Your task to perform on an android device: turn on bluetooth scan Image 0: 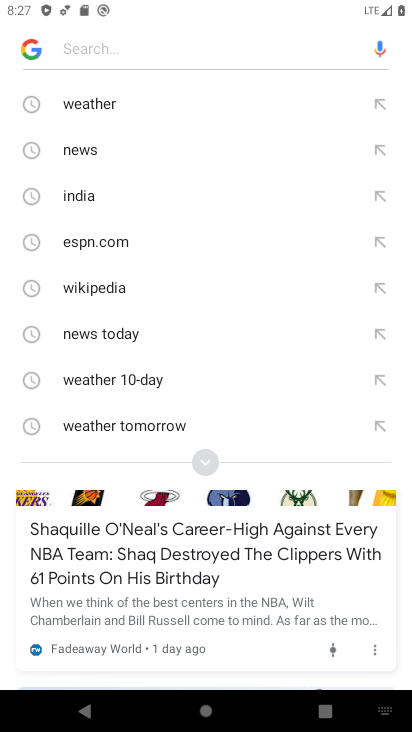
Step 0: press home button
Your task to perform on an android device: turn on bluetooth scan Image 1: 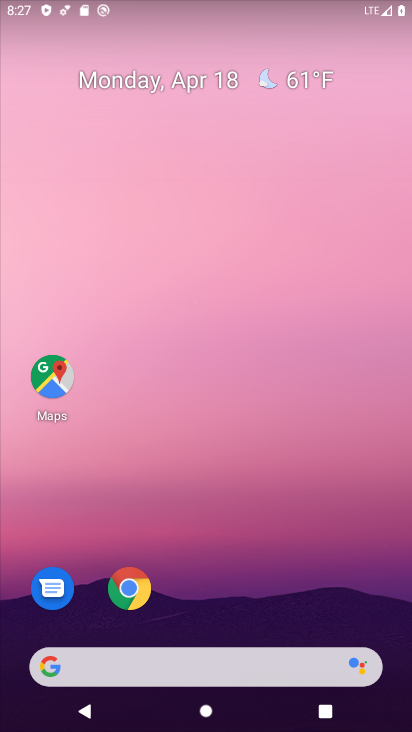
Step 1: drag from (395, 636) to (373, 162)
Your task to perform on an android device: turn on bluetooth scan Image 2: 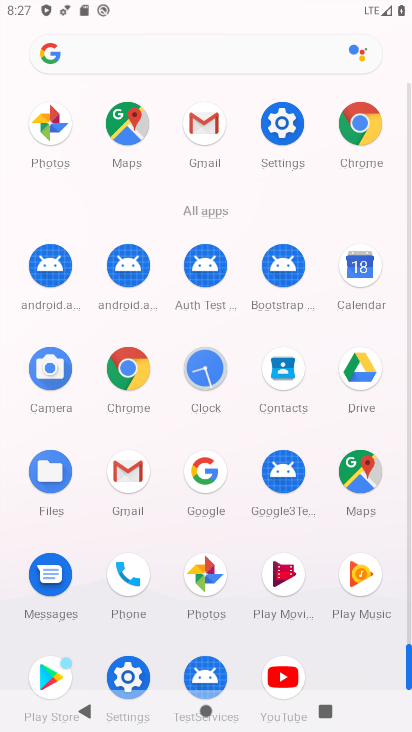
Step 2: click (126, 674)
Your task to perform on an android device: turn on bluetooth scan Image 3: 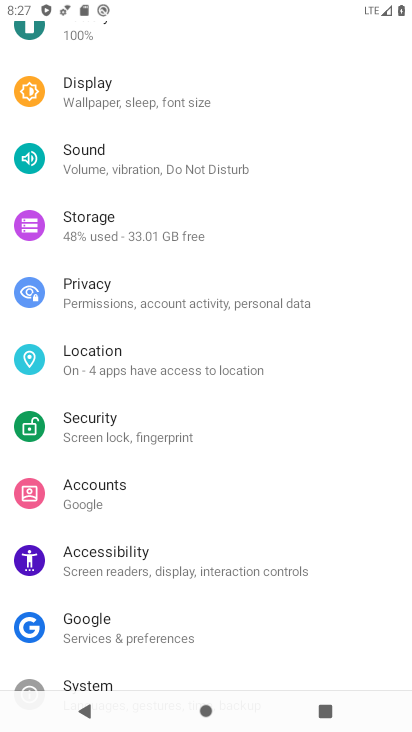
Step 3: drag from (299, 162) to (322, 354)
Your task to perform on an android device: turn on bluetooth scan Image 4: 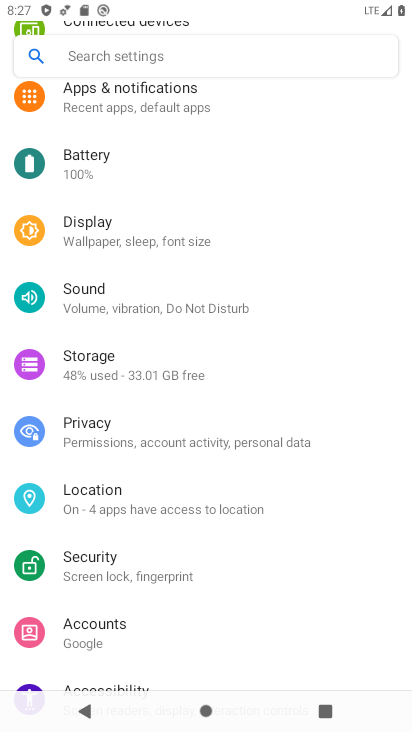
Step 4: click (294, 181)
Your task to perform on an android device: turn on bluetooth scan Image 5: 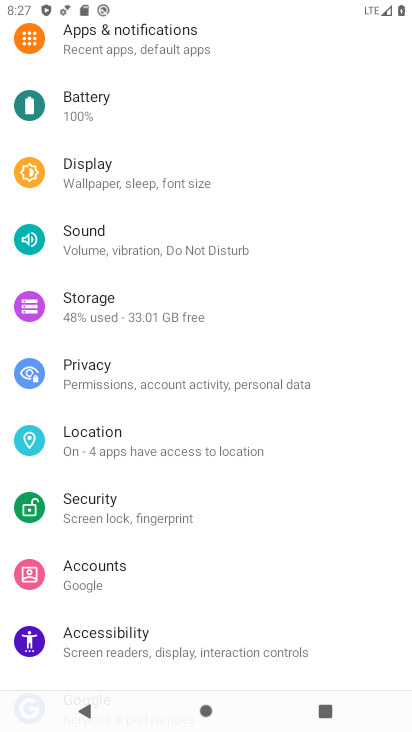
Step 5: click (81, 427)
Your task to perform on an android device: turn on bluetooth scan Image 6: 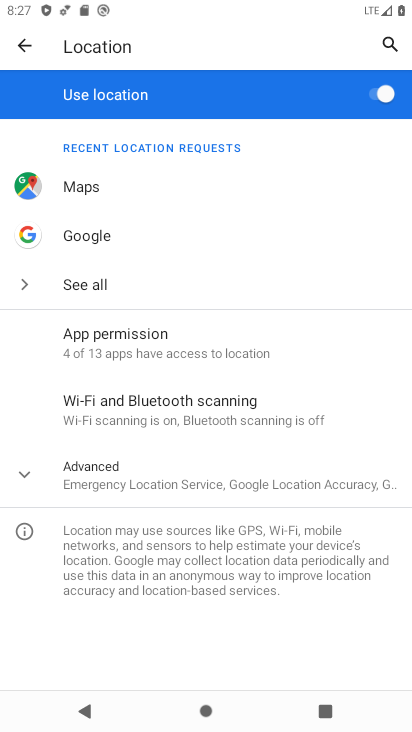
Step 6: click (135, 406)
Your task to perform on an android device: turn on bluetooth scan Image 7: 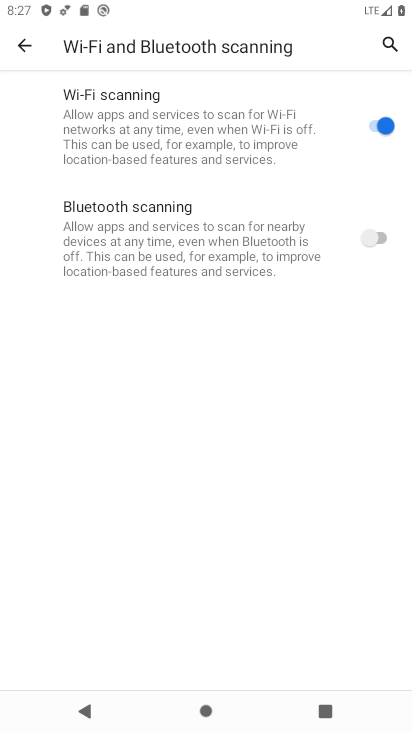
Step 7: click (379, 236)
Your task to perform on an android device: turn on bluetooth scan Image 8: 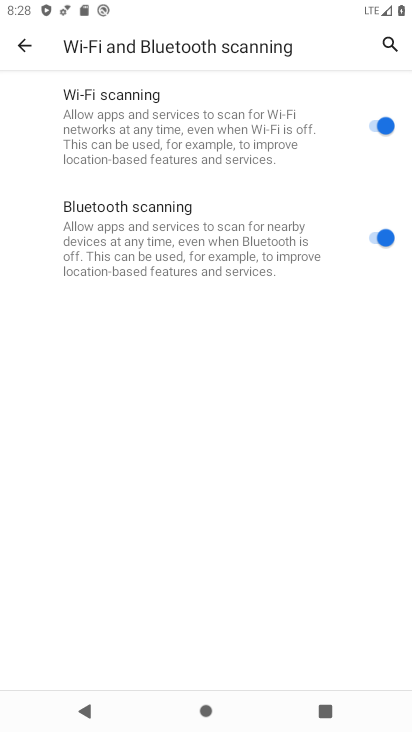
Step 8: task complete